Your task to perform on an android device: Open Google Maps and go to "Timeline" Image 0: 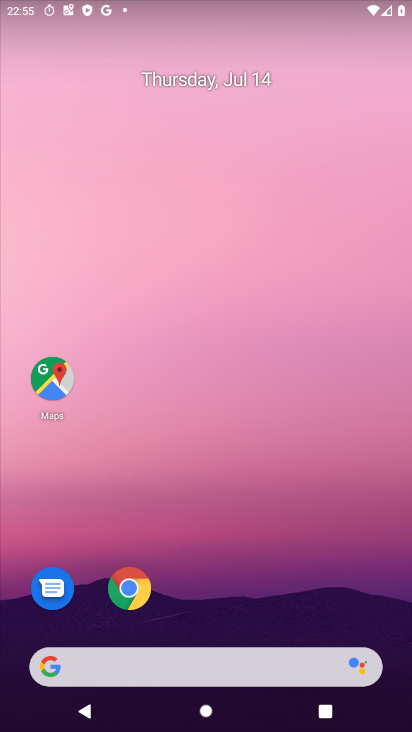
Step 0: click (48, 383)
Your task to perform on an android device: Open Google Maps and go to "Timeline" Image 1: 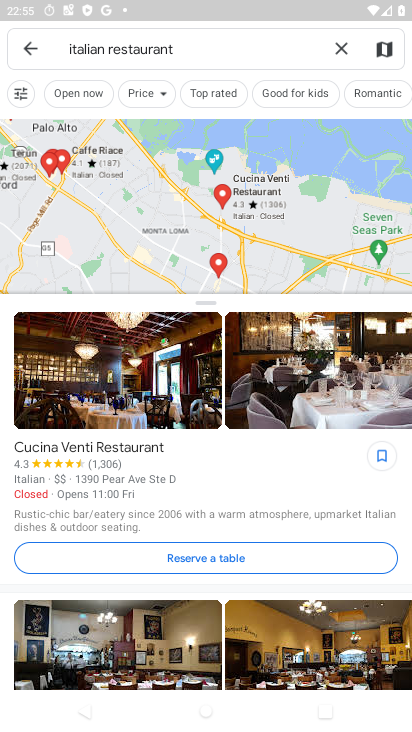
Step 1: click (340, 43)
Your task to perform on an android device: Open Google Maps and go to "Timeline" Image 2: 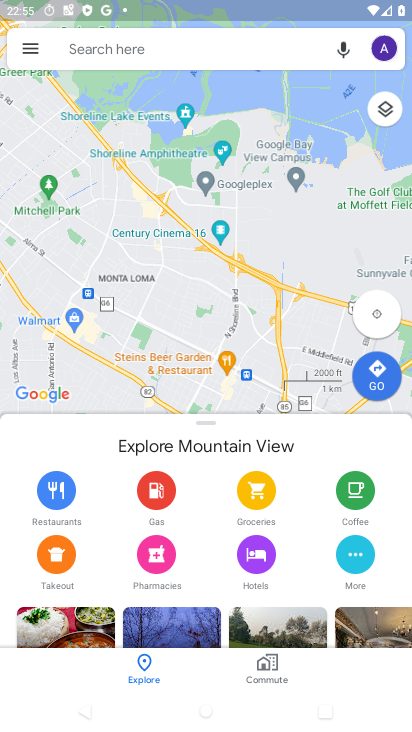
Step 2: click (33, 45)
Your task to perform on an android device: Open Google Maps and go to "Timeline" Image 3: 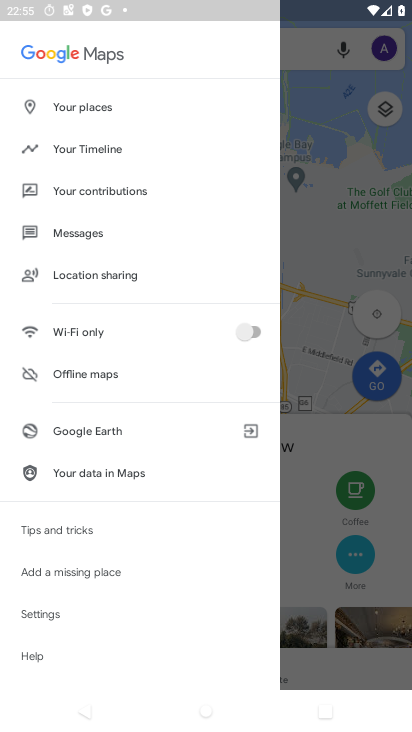
Step 3: click (69, 147)
Your task to perform on an android device: Open Google Maps and go to "Timeline" Image 4: 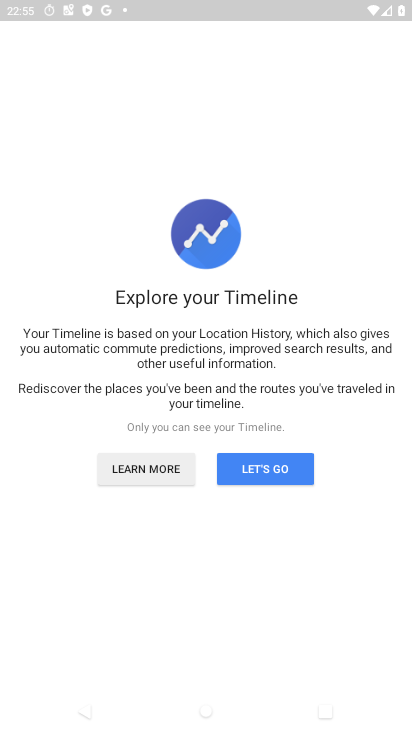
Step 4: click (282, 468)
Your task to perform on an android device: Open Google Maps and go to "Timeline" Image 5: 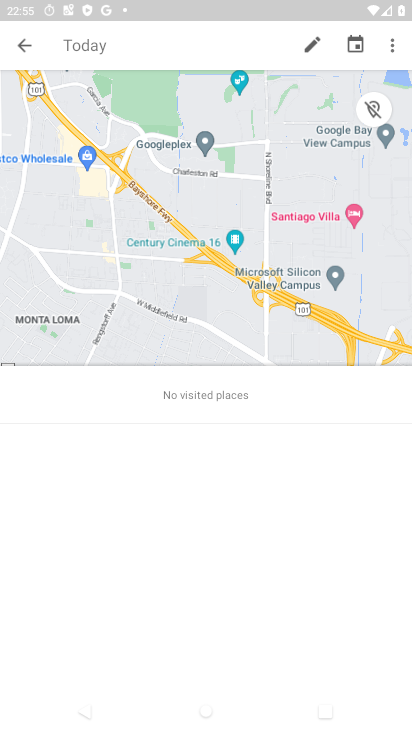
Step 5: task complete